Your task to perform on an android device: Open calendar and show me the first week of next month Image 0: 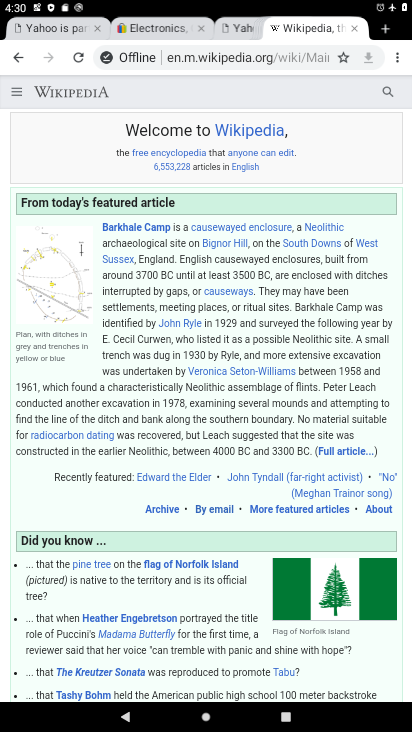
Step 0: press home button
Your task to perform on an android device: Open calendar and show me the first week of next month Image 1: 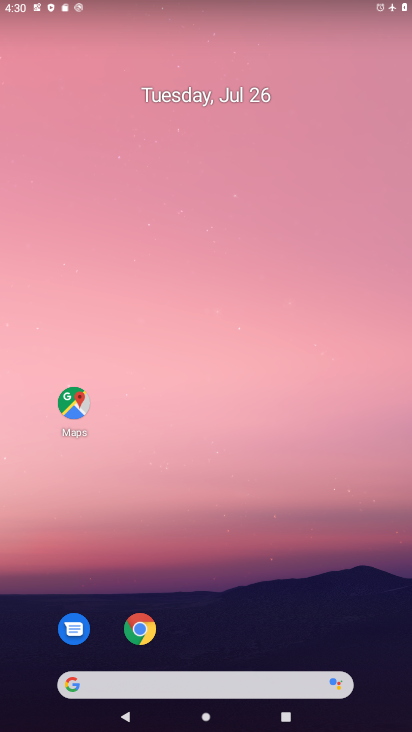
Step 1: drag from (239, 638) to (238, 151)
Your task to perform on an android device: Open calendar and show me the first week of next month Image 2: 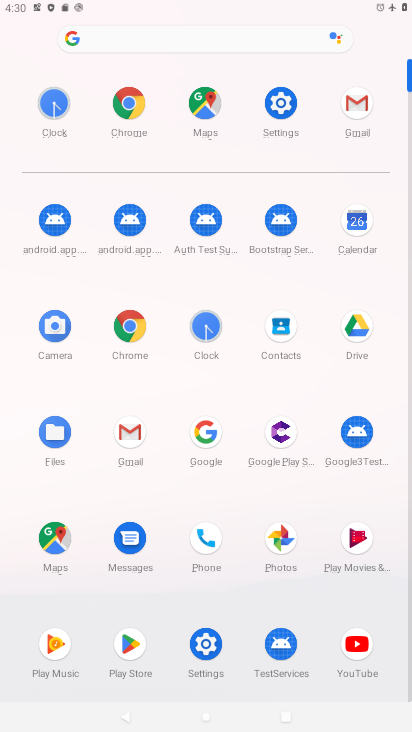
Step 2: click (360, 220)
Your task to perform on an android device: Open calendar and show me the first week of next month Image 3: 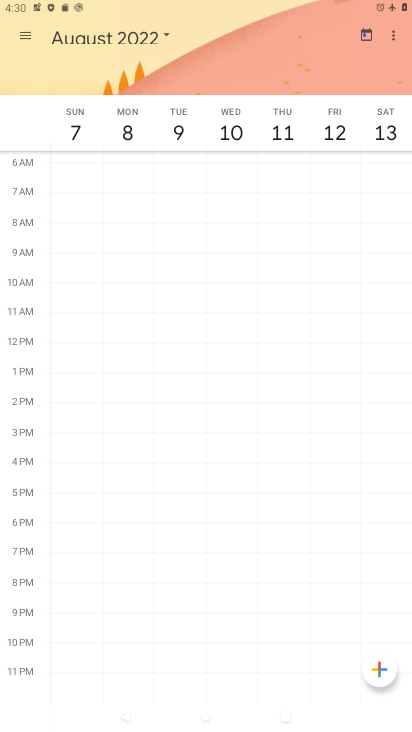
Step 3: click (166, 31)
Your task to perform on an android device: Open calendar and show me the first week of next month Image 4: 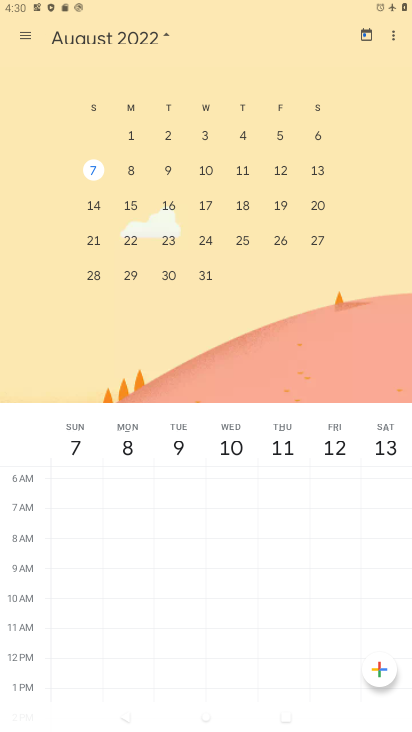
Step 4: click (128, 130)
Your task to perform on an android device: Open calendar and show me the first week of next month Image 5: 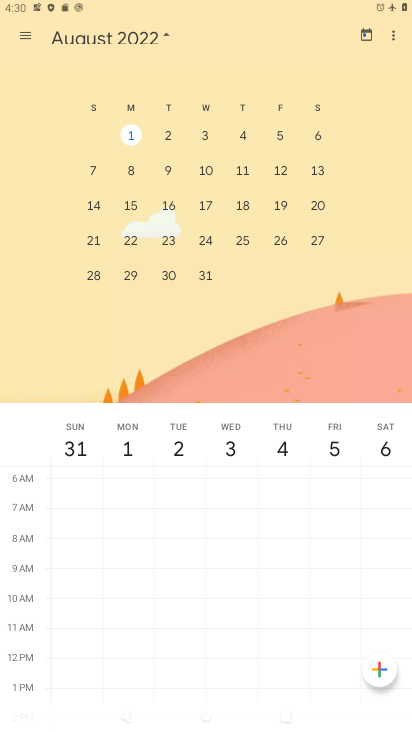
Step 5: click (26, 38)
Your task to perform on an android device: Open calendar and show me the first week of next month Image 6: 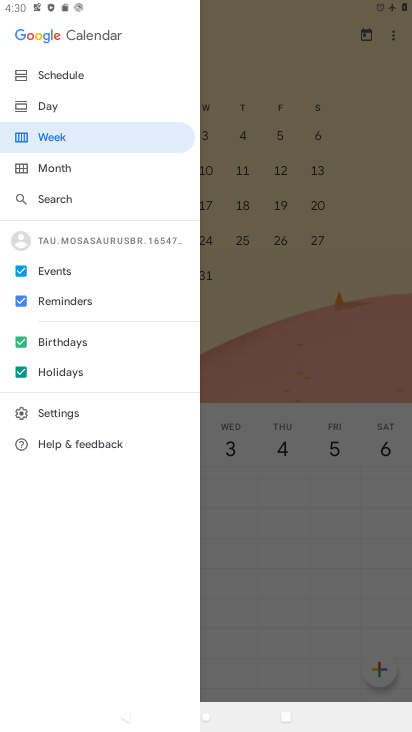
Step 6: click (61, 136)
Your task to perform on an android device: Open calendar and show me the first week of next month Image 7: 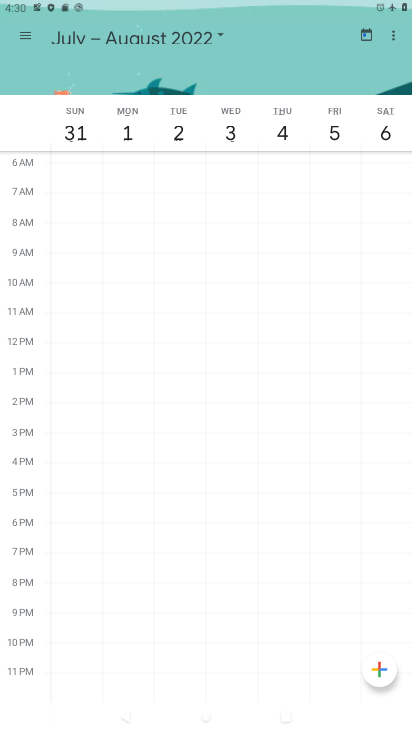
Step 7: task complete